Your task to perform on an android device: Search for Mexican restaurants on Maps Image 0: 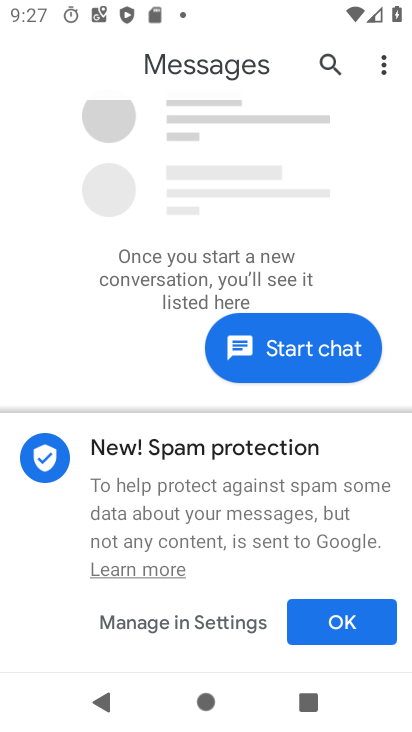
Step 0: press home button
Your task to perform on an android device: Search for Mexican restaurants on Maps Image 1: 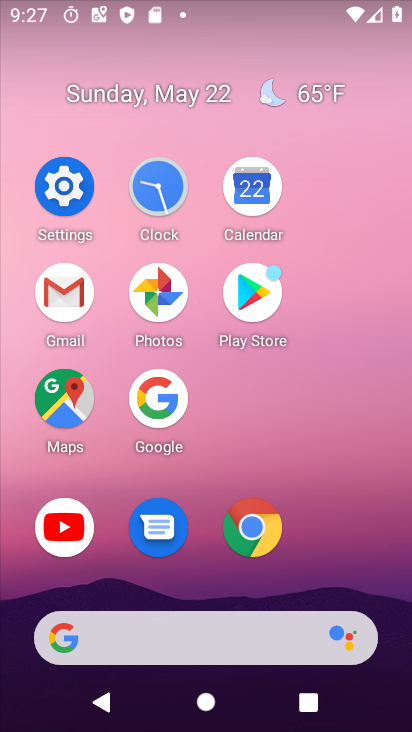
Step 1: click (66, 398)
Your task to perform on an android device: Search for Mexican restaurants on Maps Image 2: 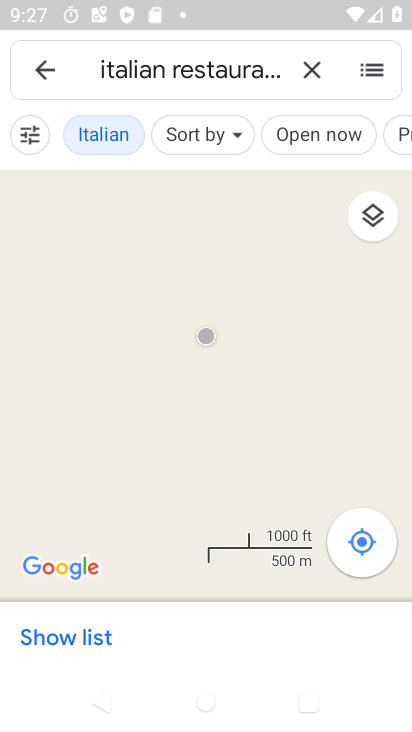
Step 2: click (319, 62)
Your task to perform on an android device: Search for Mexican restaurants on Maps Image 3: 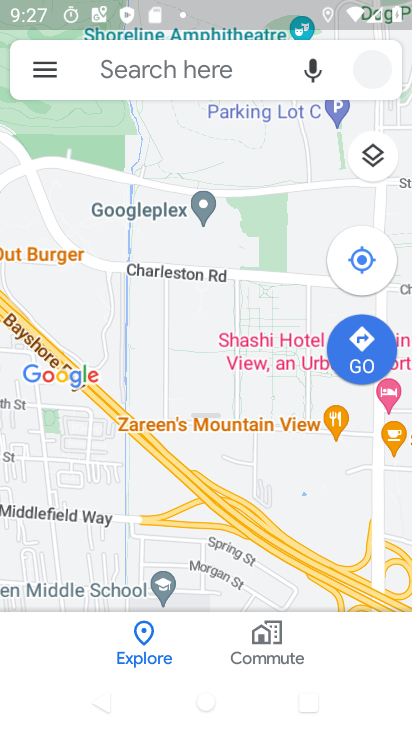
Step 3: click (202, 64)
Your task to perform on an android device: Search for Mexican restaurants on Maps Image 4: 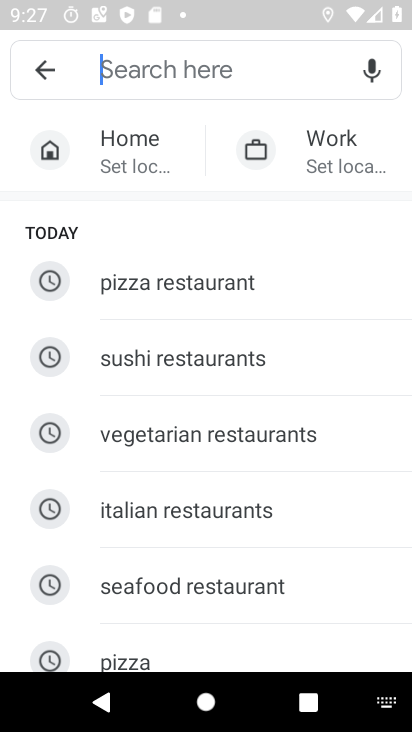
Step 4: drag from (209, 459) to (231, 293)
Your task to perform on an android device: Search for Mexican restaurants on Maps Image 5: 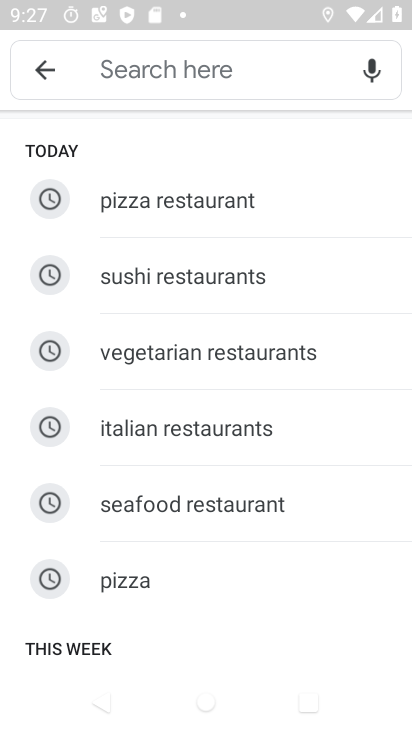
Step 5: click (184, 68)
Your task to perform on an android device: Search for Mexican restaurants on Maps Image 6: 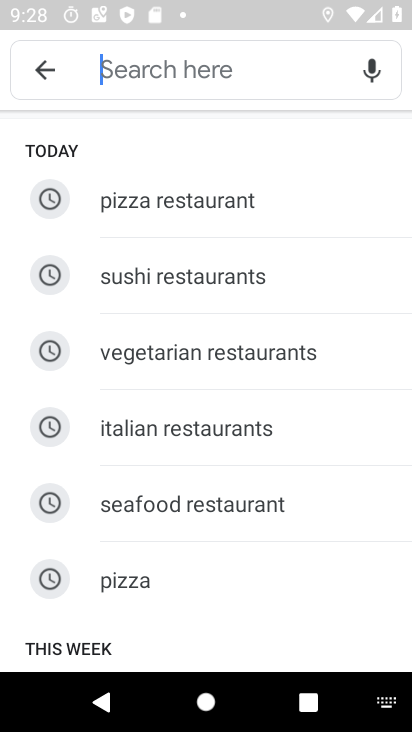
Step 6: type "mexican restaurants"
Your task to perform on an android device: Search for Mexican restaurants on Maps Image 7: 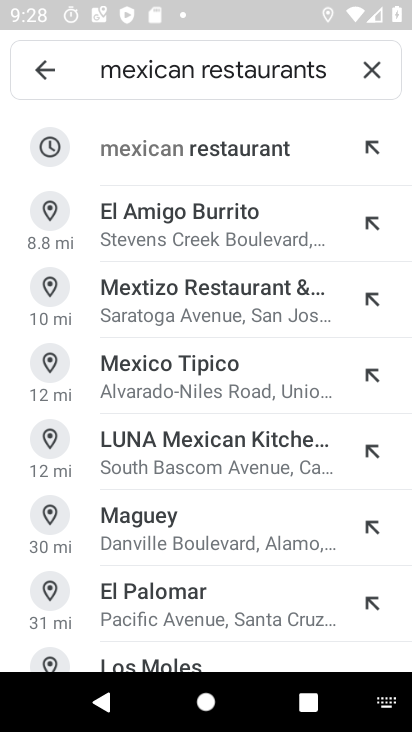
Step 7: task complete